Your task to perform on an android device: turn on location history Image 0: 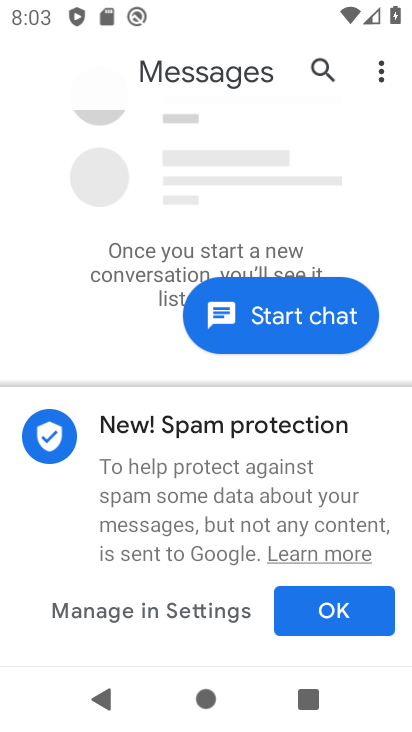
Step 0: press home button
Your task to perform on an android device: turn on location history Image 1: 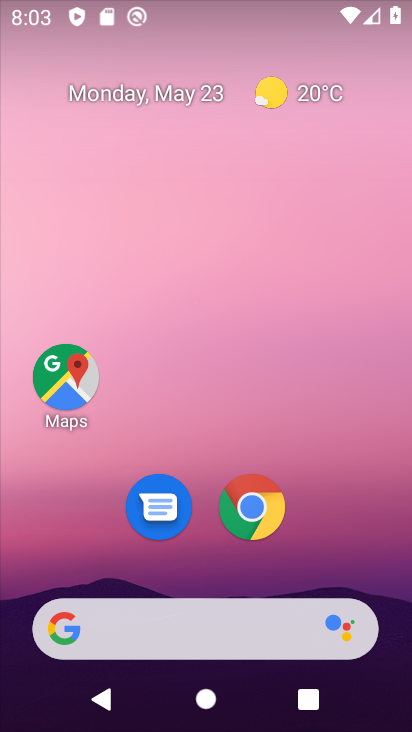
Step 1: click (69, 385)
Your task to perform on an android device: turn on location history Image 2: 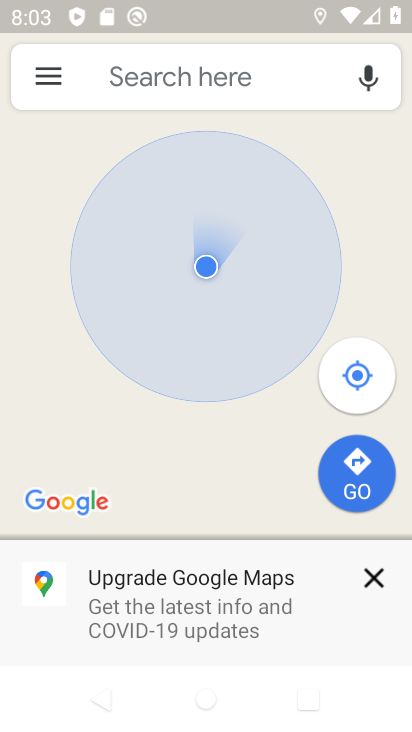
Step 2: click (51, 81)
Your task to perform on an android device: turn on location history Image 3: 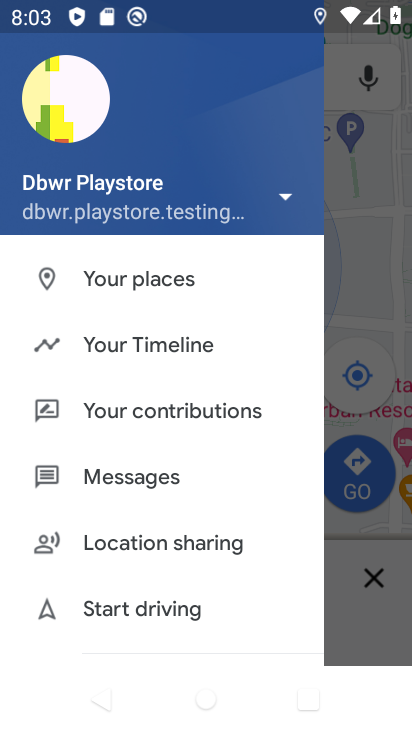
Step 3: click (121, 346)
Your task to perform on an android device: turn on location history Image 4: 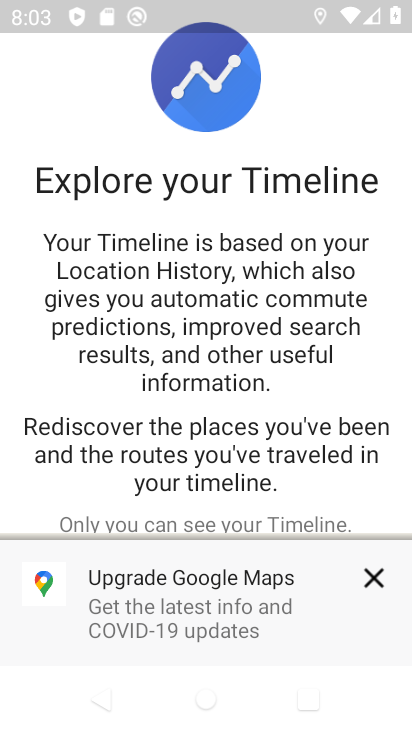
Step 4: click (374, 578)
Your task to perform on an android device: turn on location history Image 5: 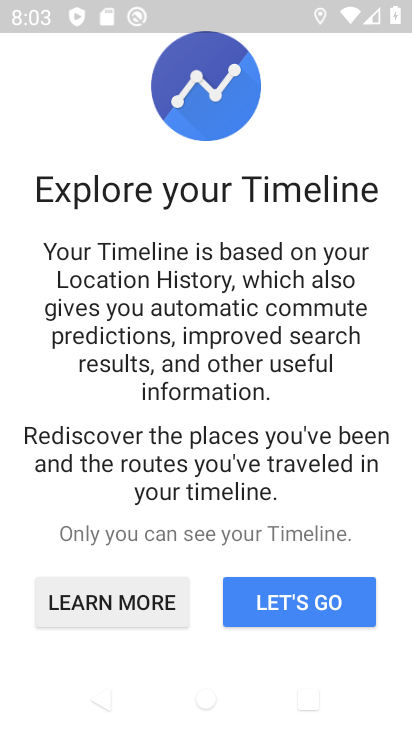
Step 5: click (298, 609)
Your task to perform on an android device: turn on location history Image 6: 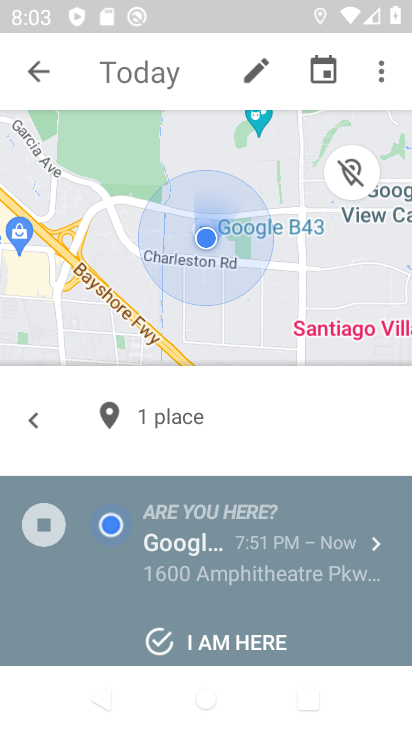
Step 6: click (384, 79)
Your task to perform on an android device: turn on location history Image 7: 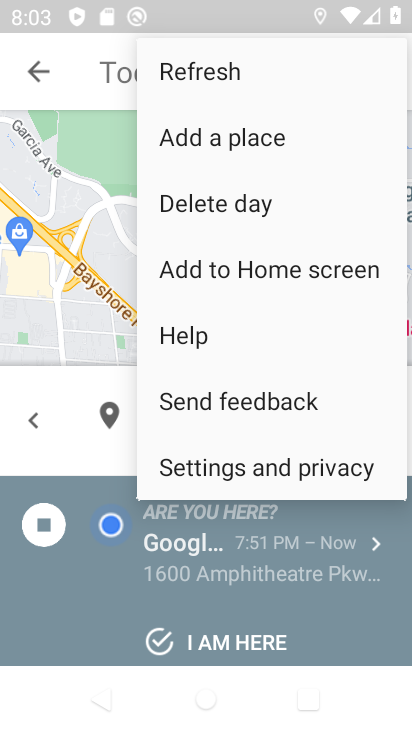
Step 7: click (211, 465)
Your task to perform on an android device: turn on location history Image 8: 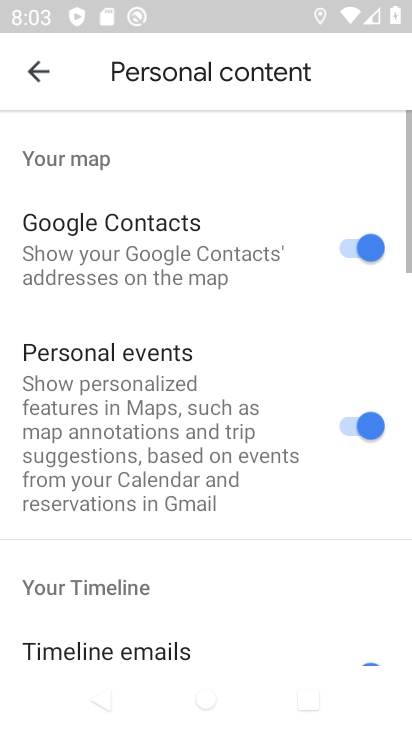
Step 8: drag from (162, 500) to (173, 87)
Your task to perform on an android device: turn on location history Image 9: 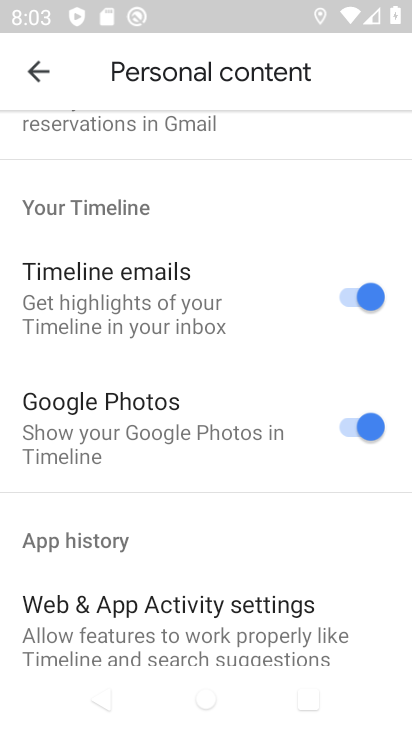
Step 9: drag from (165, 522) to (167, 120)
Your task to perform on an android device: turn on location history Image 10: 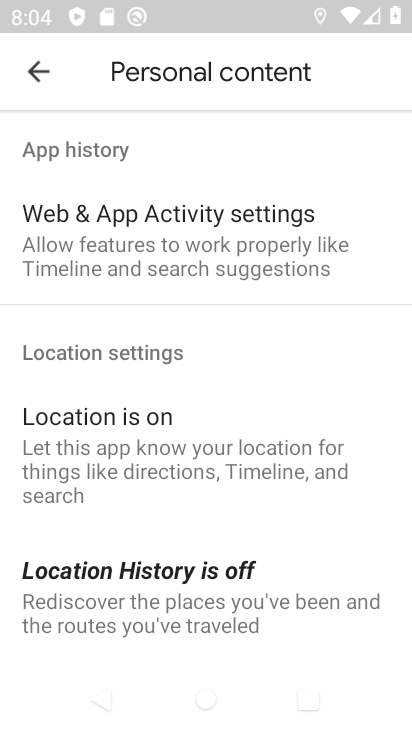
Step 10: click (145, 585)
Your task to perform on an android device: turn on location history Image 11: 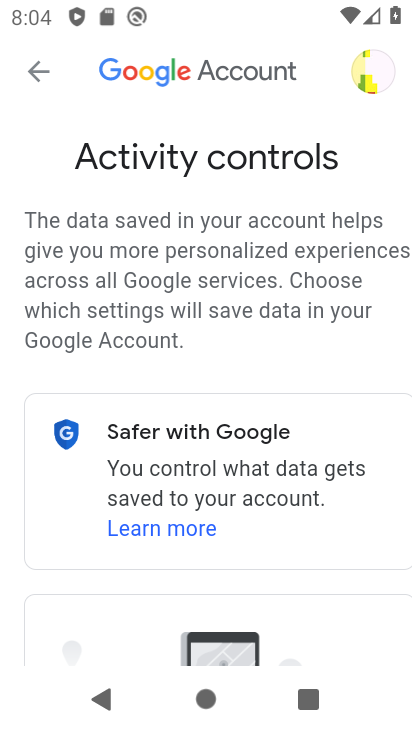
Step 11: drag from (231, 558) to (229, 152)
Your task to perform on an android device: turn on location history Image 12: 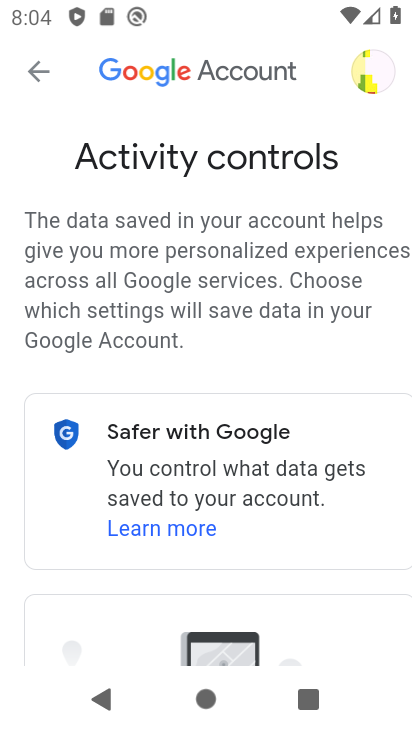
Step 12: drag from (229, 410) to (241, 105)
Your task to perform on an android device: turn on location history Image 13: 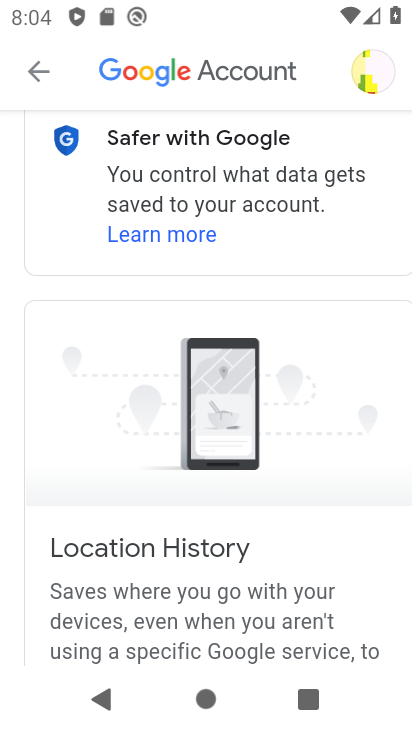
Step 13: drag from (210, 550) to (247, 63)
Your task to perform on an android device: turn on location history Image 14: 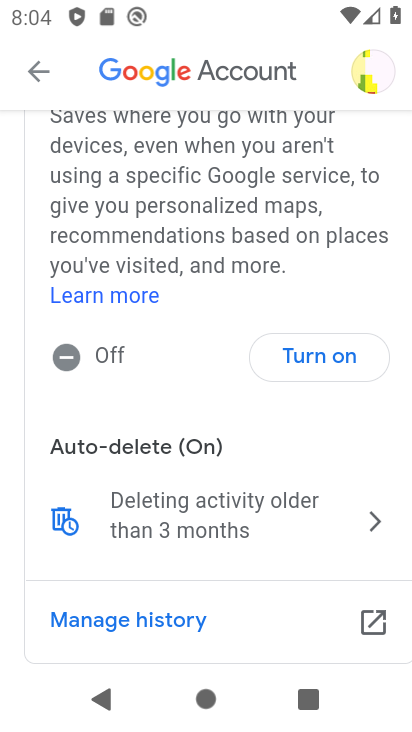
Step 14: click (323, 367)
Your task to perform on an android device: turn on location history Image 15: 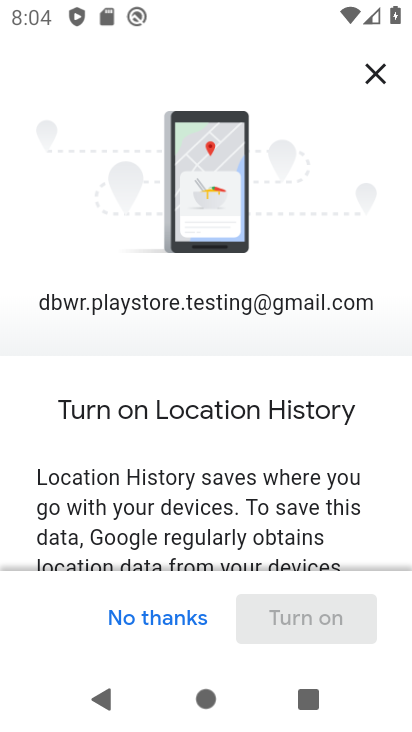
Step 15: drag from (172, 528) to (177, 117)
Your task to perform on an android device: turn on location history Image 16: 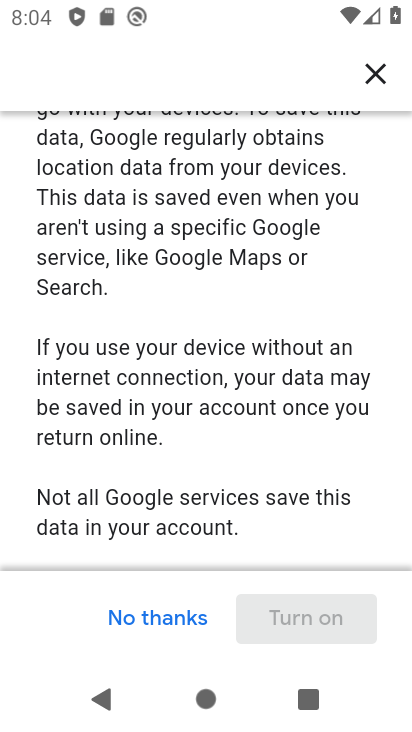
Step 16: drag from (213, 487) to (227, 143)
Your task to perform on an android device: turn on location history Image 17: 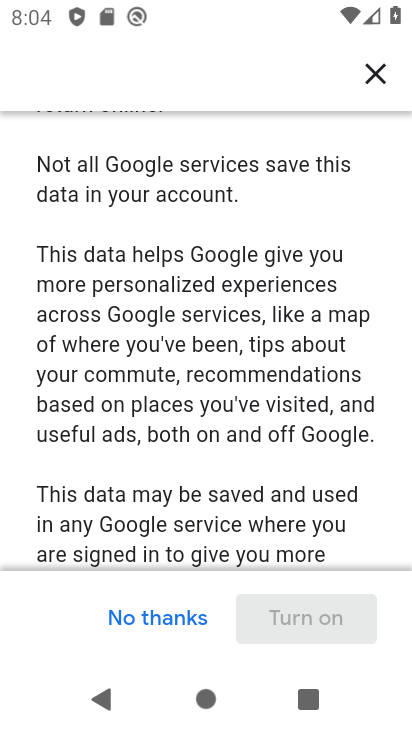
Step 17: drag from (202, 524) to (212, 113)
Your task to perform on an android device: turn on location history Image 18: 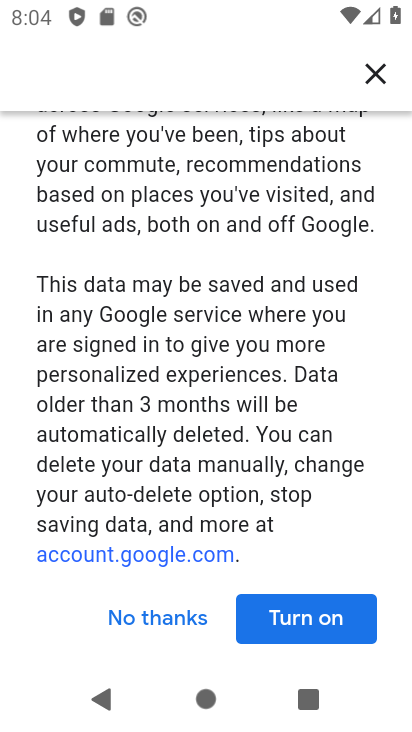
Step 18: click (307, 624)
Your task to perform on an android device: turn on location history Image 19: 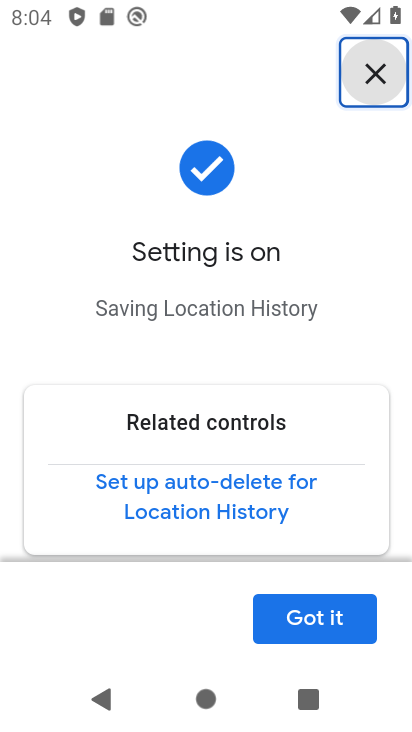
Step 19: click (298, 611)
Your task to perform on an android device: turn on location history Image 20: 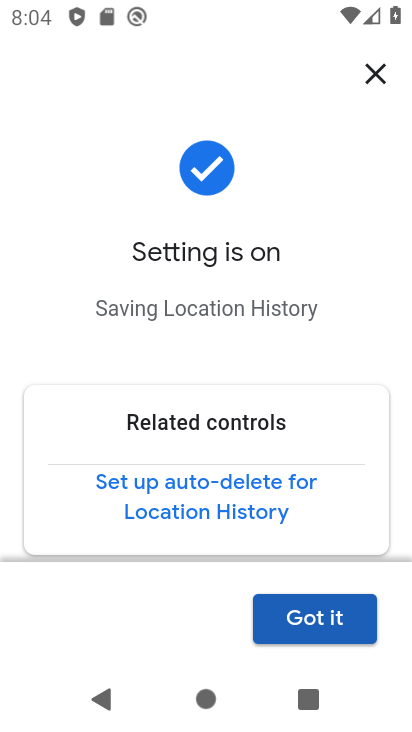
Step 20: click (294, 626)
Your task to perform on an android device: turn on location history Image 21: 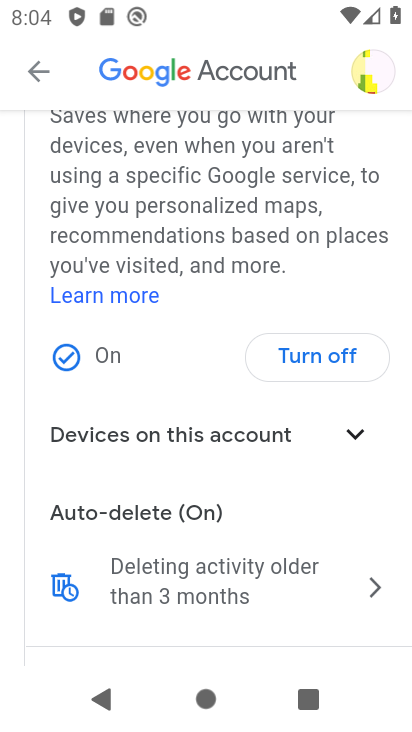
Step 21: task complete